Your task to perform on an android device: turn on the 24-hour format for clock Image 0: 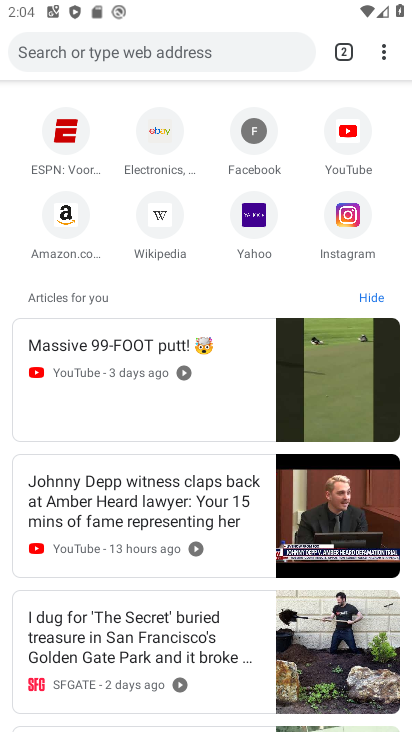
Step 0: drag from (213, 594) to (228, 163)
Your task to perform on an android device: turn on the 24-hour format for clock Image 1: 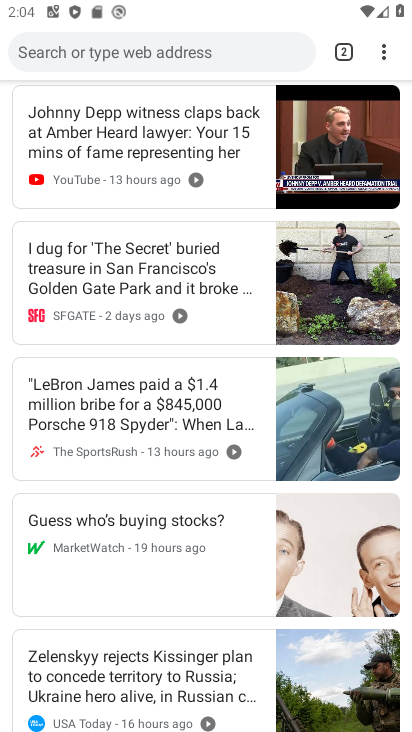
Step 1: press home button
Your task to perform on an android device: turn on the 24-hour format for clock Image 2: 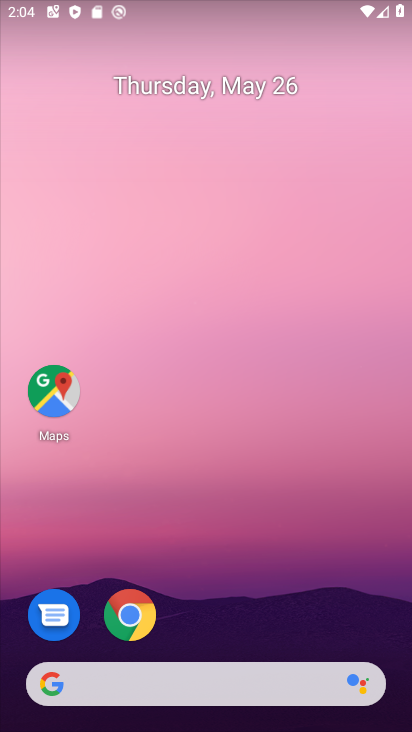
Step 2: drag from (217, 645) to (250, 71)
Your task to perform on an android device: turn on the 24-hour format for clock Image 3: 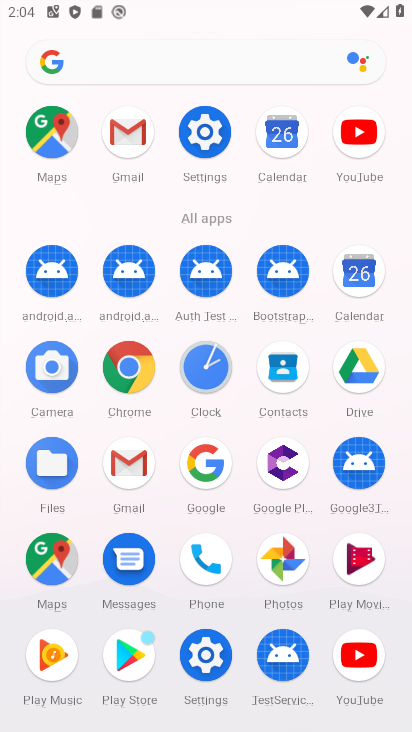
Step 3: click (201, 358)
Your task to perform on an android device: turn on the 24-hour format for clock Image 4: 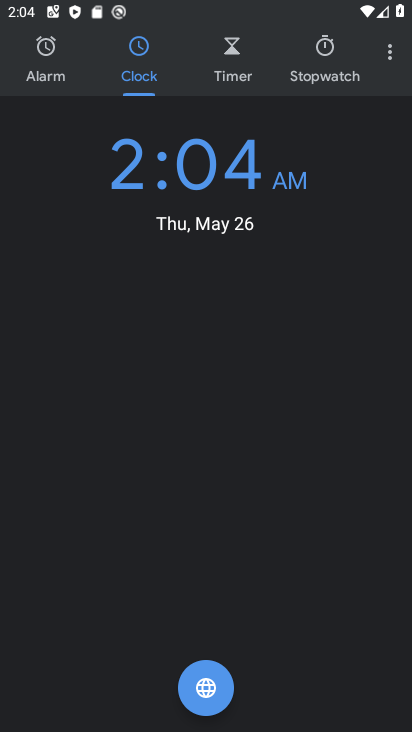
Step 4: click (383, 52)
Your task to perform on an android device: turn on the 24-hour format for clock Image 5: 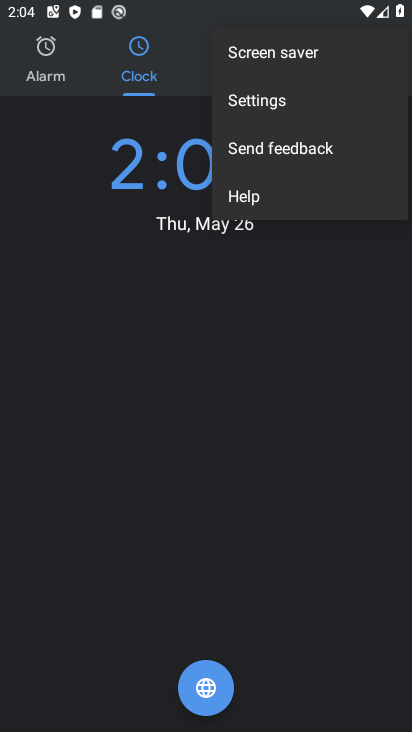
Step 5: click (293, 98)
Your task to perform on an android device: turn on the 24-hour format for clock Image 6: 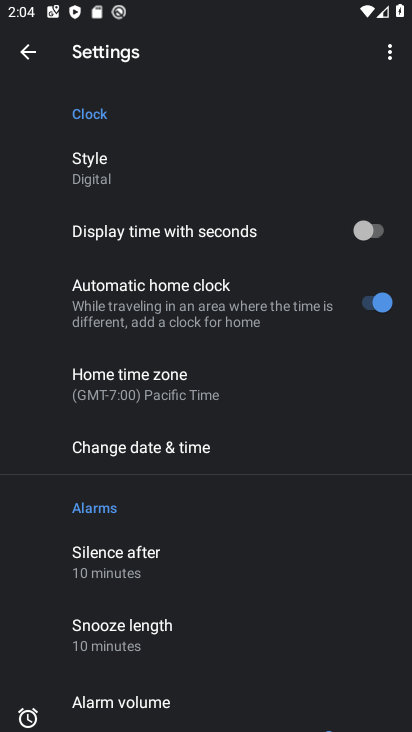
Step 6: click (226, 453)
Your task to perform on an android device: turn on the 24-hour format for clock Image 7: 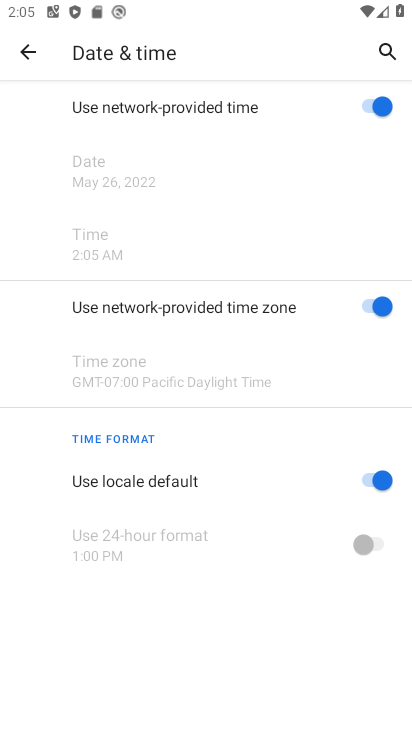
Step 7: click (362, 470)
Your task to perform on an android device: turn on the 24-hour format for clock Image 8: 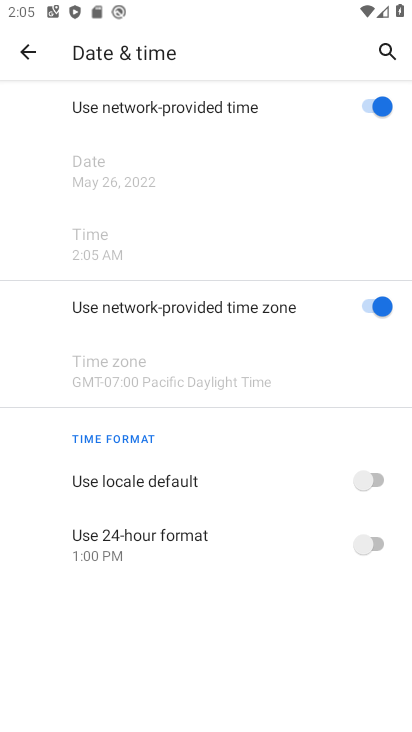
Step 8: click (368, 539)
Your task to perform on an android device: turn on the 24-hour format for clock Image 9: 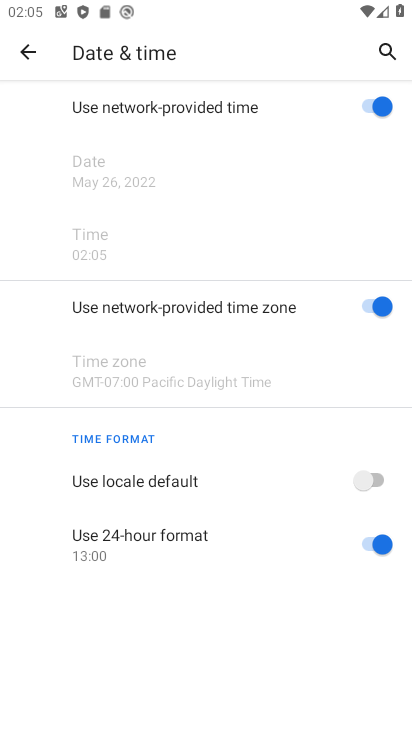
Step 9: task complete